Your task to perform on an android device: toggle wifi Image 0: 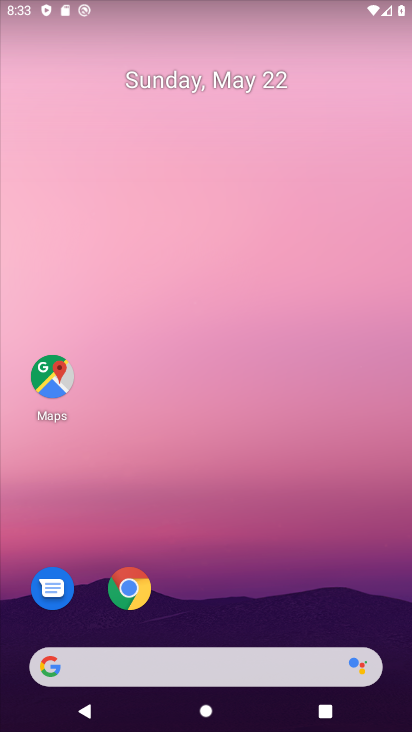
Step 0: drag from (272, 596) to (283, 33)
Your task to perform on an android device: toggle wifi Image 1: 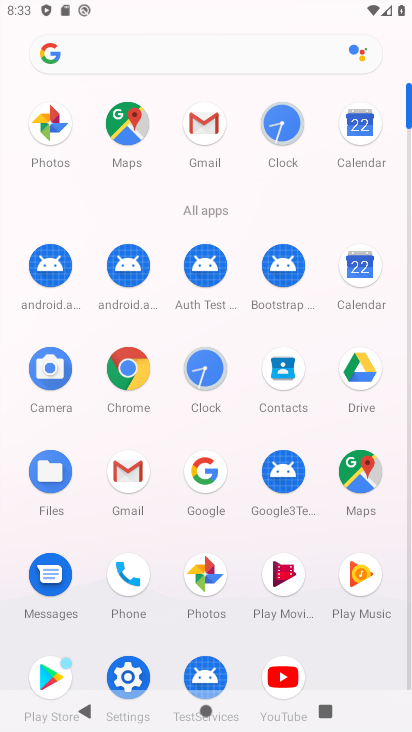
Step 1: click (120, 667)
Your task to perform on an android device: toggle wifi Image 2: 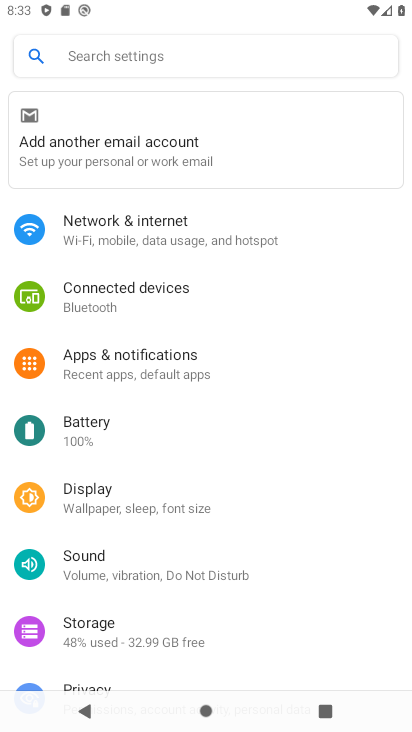
Step 2: click (109, 227)
Your task to perform on an android device: toggle wifi Image 3: 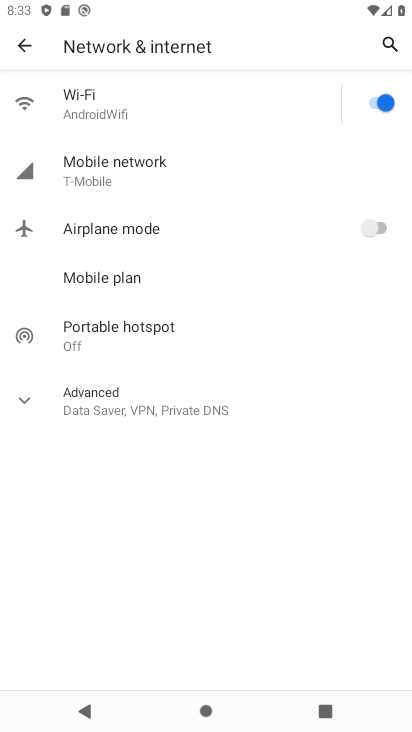
Step 3: click (373, 114)
Your task to perform on an android device: toggle wifi Image 4: 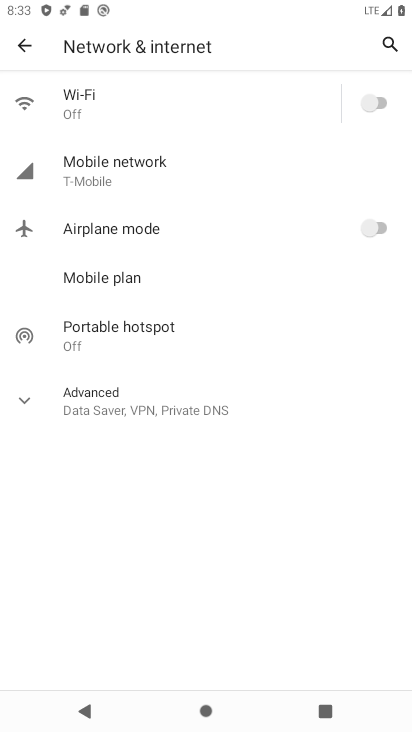
Step 4: task complete